Your task to perform on an android device: What is the news today? Image 0: 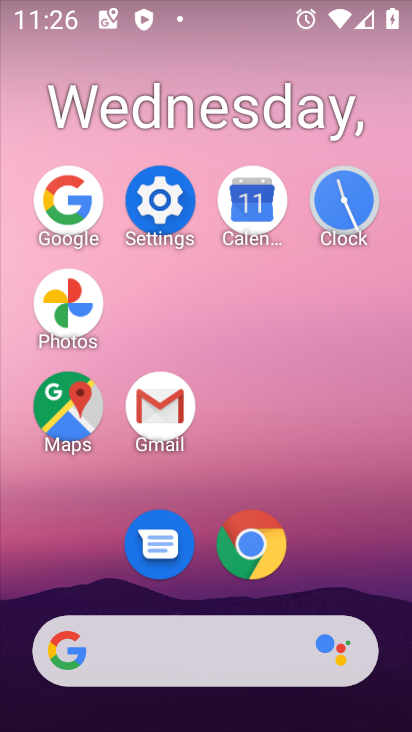
Step 0: click (58, 202)
Your task to perform on an android device: What is the news today? Image 1: 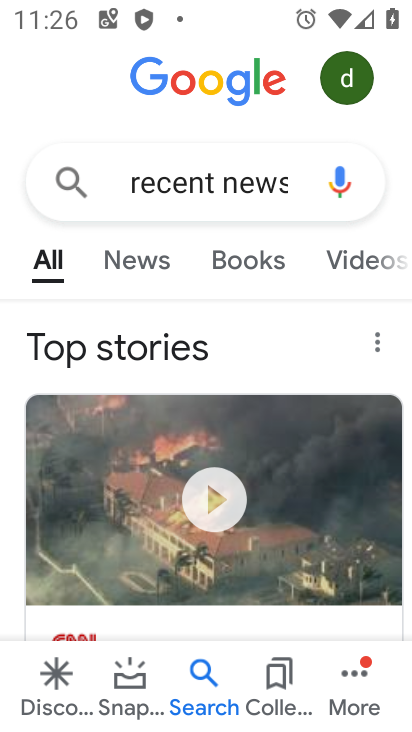
Step 1: task complete